Your task to perform on an android device: check battery use Image 0: 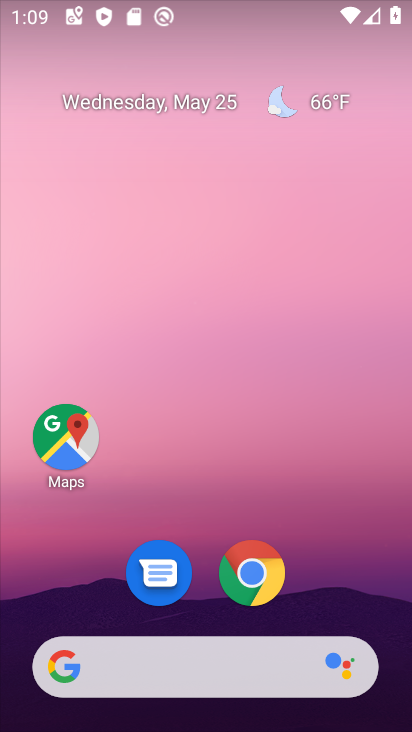
Step 0: drag from (369, 617) to (348, 123)
Your task to perform on an android device: check battery use Image 1: 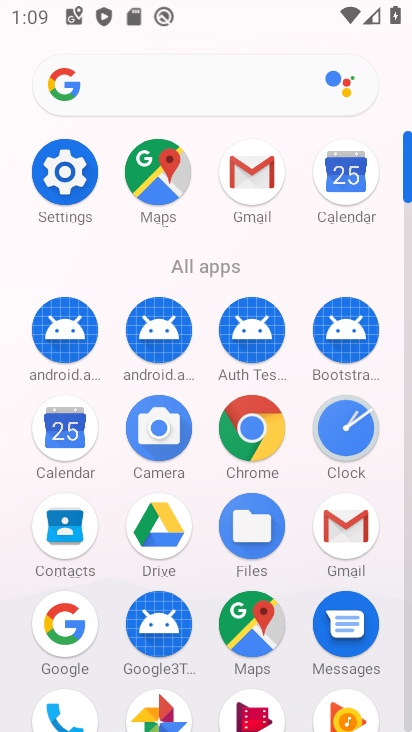
Step 1: click (407, 699)
Your task to perform on an android device: check battery use Image 2: 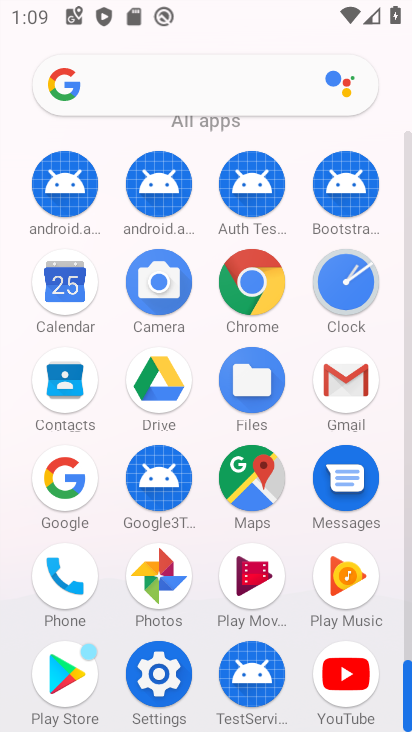
Step 2: click (161, 674)
Your task to perform on an android device: check battery use Image 3: 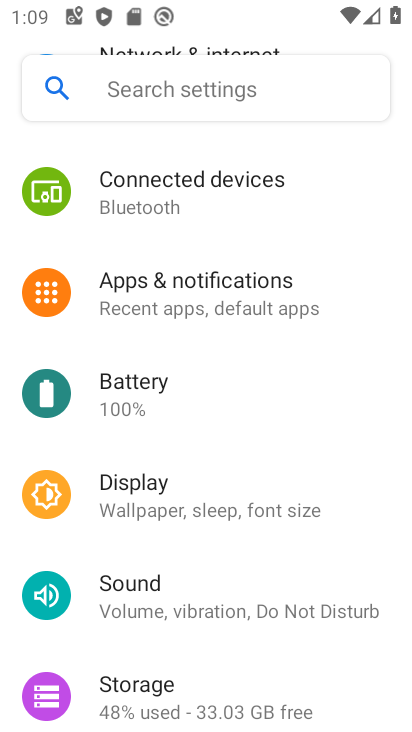
Step 3: click (132, 396)
Your task to perform on an android device: check battery use Image 4: 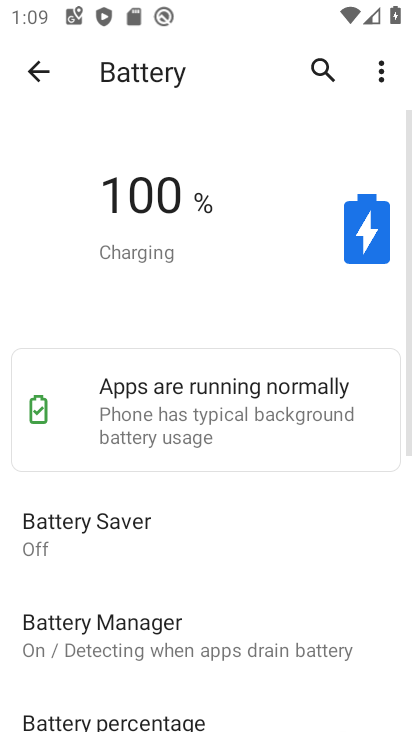
Step 4: drag from (263, 629) to (267, 236)
Your task to perform on an android device: check battery use Image 5: 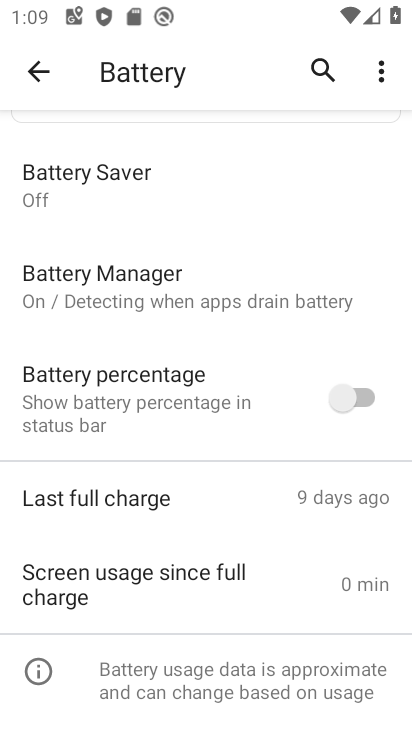
Step 5: drag from (270, 453) to (305, 97)
Your task to perform on an android device: check battery use Image 6: 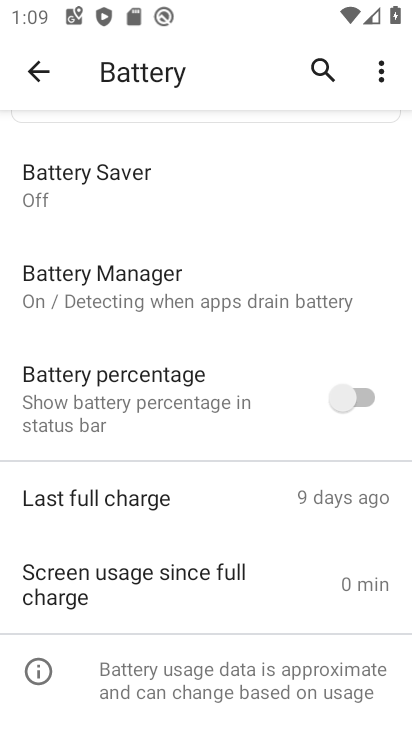
Step 6: click (379, 81)
Your task to perform on an android device: check battery use Image 7: 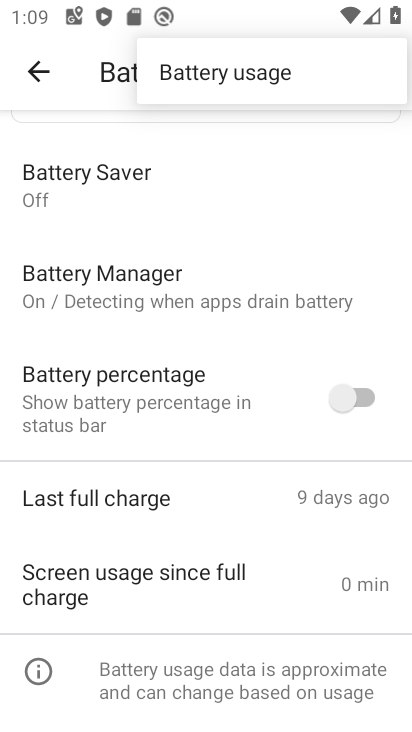
Step 7: click (194, 69)
Your task to perform on an android device: check battery use Image 8: 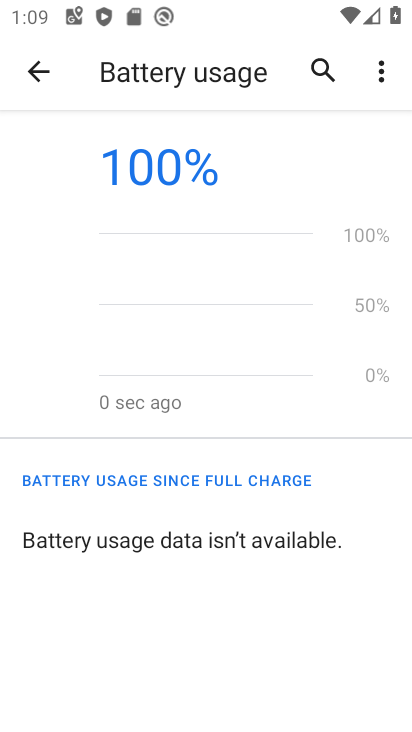
Step 8: task complete